Your task to perform on an android device: turn on sleep mode Image 0: 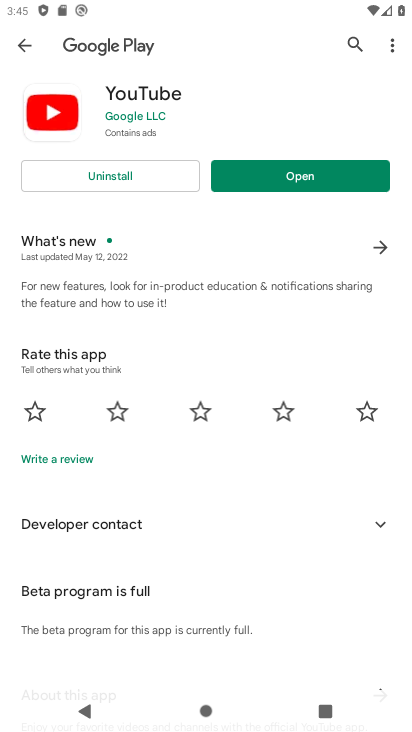
Step 0: press home button
Your task to perform on an android device: turn on sleep mode Image 1: 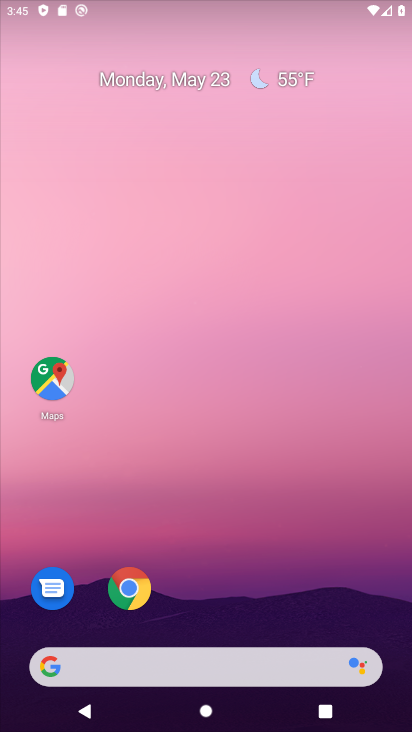
Step 1: drag from (207, 581) to (197, 44)
Your task to perform on an android device: turn on sleep mode Image 2: 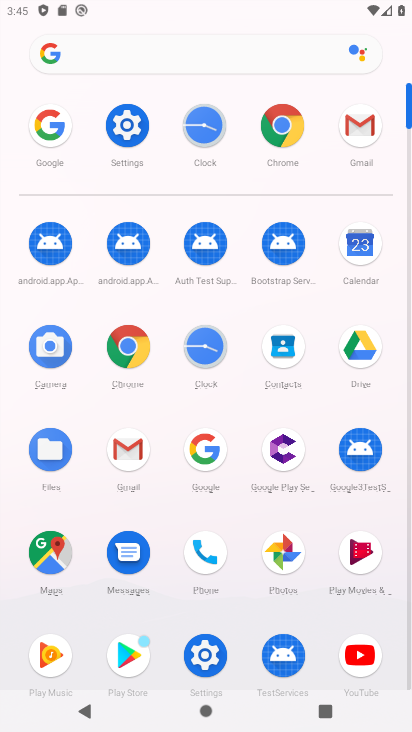
Step 2: click (128, 141)
Your task to perform on an android device: turn on sleep mode Image 3: 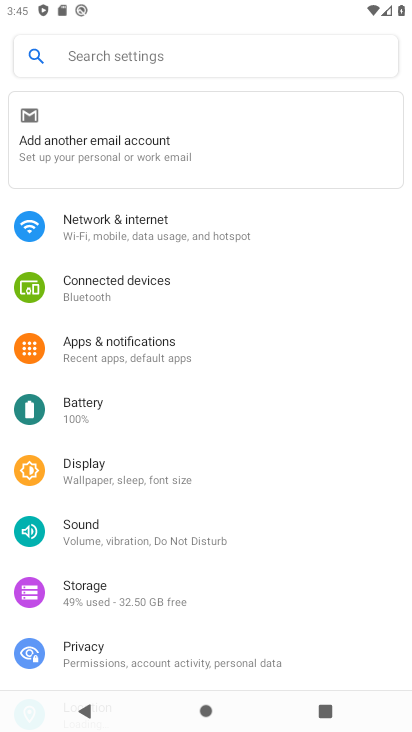
Step 3: click (138, 474)
Your task to perform on an android device: turn on sleep mode Image 4: 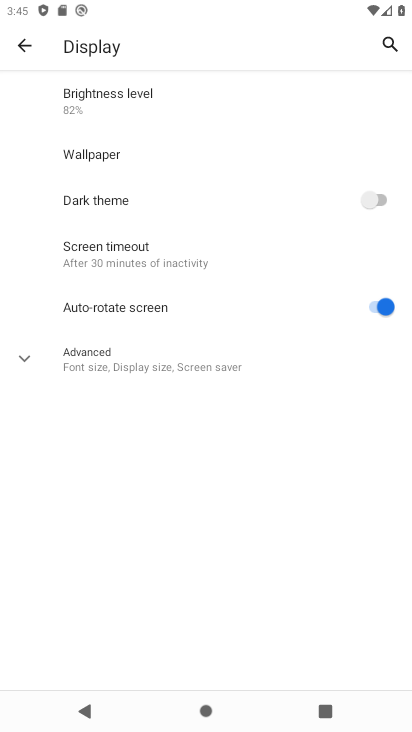
Step 4: click (121, 256)
Your task to perform on an android device: turn on sleep mode Image 5: 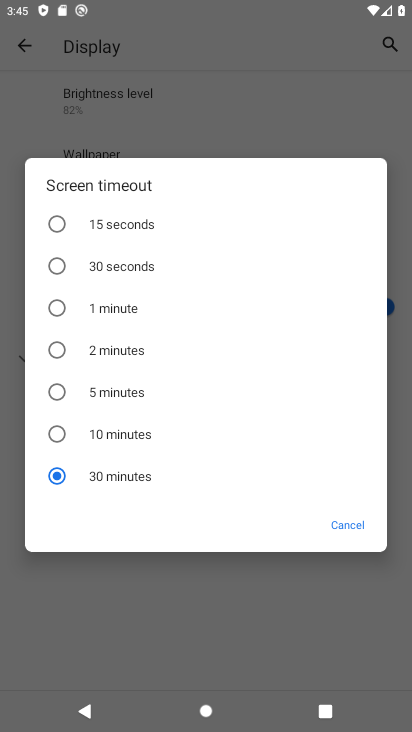
Step 5: task complete